Your task to perform on an android device: Go to wifi settings Image 0: 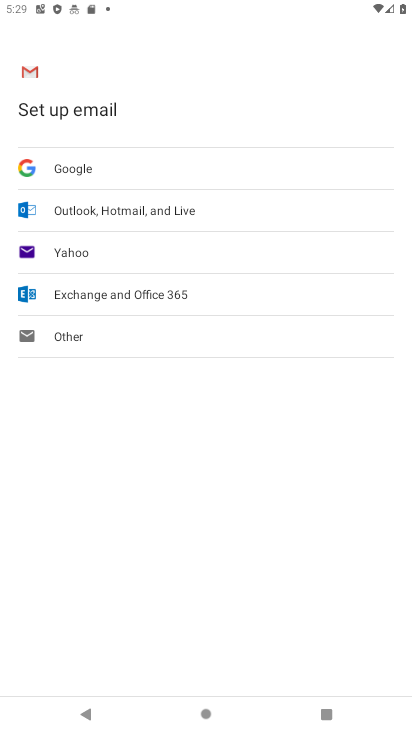
Step 0: press home button
Your task to perform on an android device: Go to wifi settings Image 1: 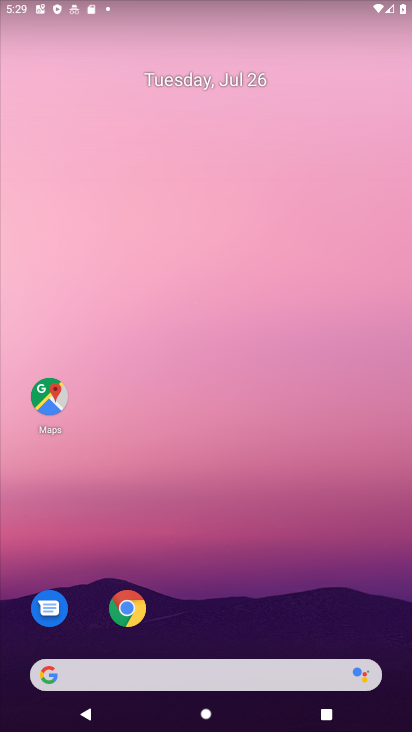
Step 1: drag from (217, 623) to (113, 199)
Your task to perform on an android device: Go to wifi settings Image 2: 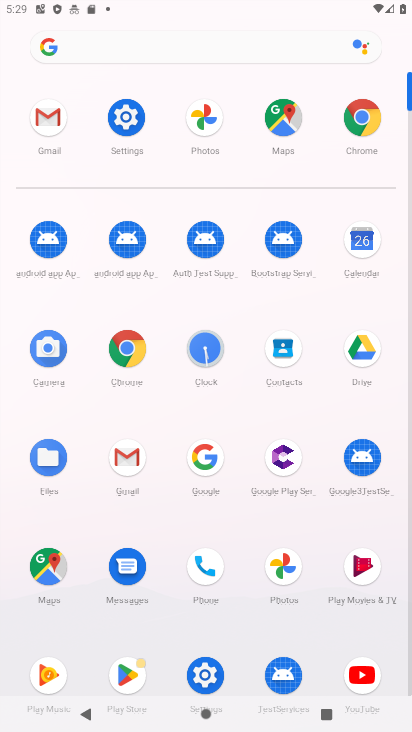
Step 2: click (131, 114)
Your task to perform on an android device: Go to wifi settings Image 3: 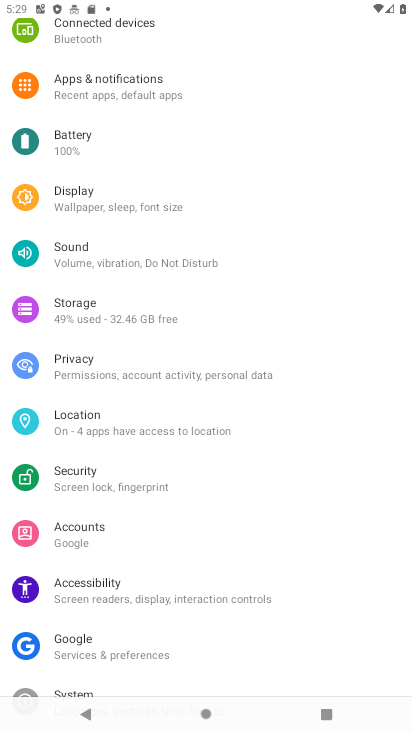
Step 3: drag from (212, 72) to (202, 628)
Your task to perform on an android device: Go to wifi settings Image 4: 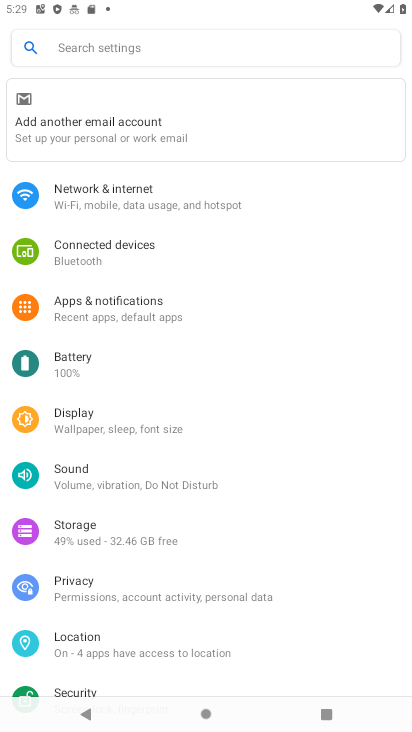
Step 4: click (93, 195)
Your task to perform on an android device: Go to wifi settings Image 5: 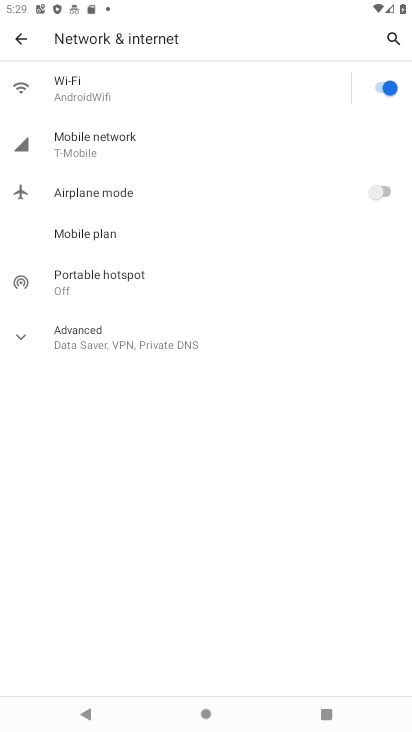
Step 5: click (77, 89)
Your task to perform on an android device: Go to wifi settings Image 6: 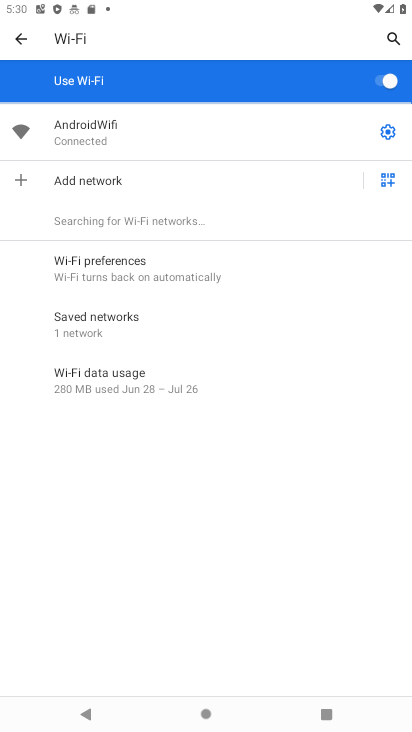
Step 6: task complete